Your task to perform on an android device: Open wifi settings Image 0: 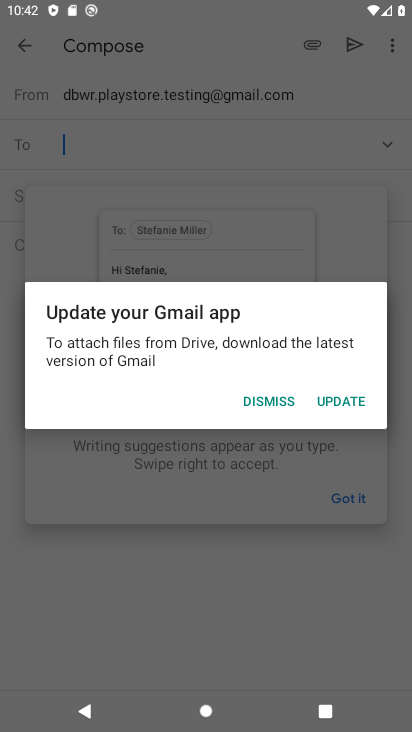
Step 0: press home button
Your task to perform on an android device: Open wifi settings Image 1: 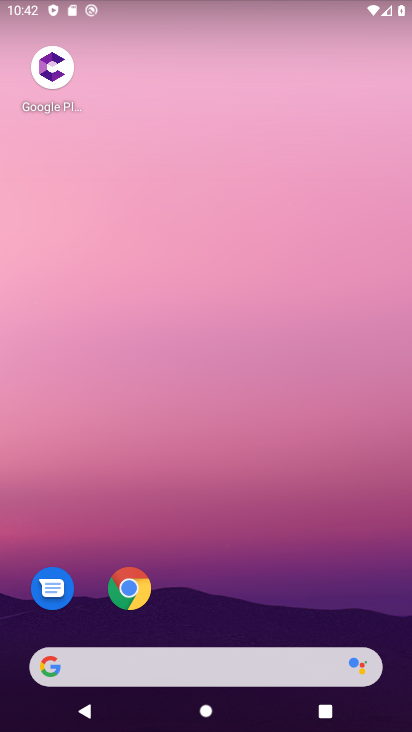
Step 1: drag from (187, 624) to (235, 168)
Your task to perform on an android device: Open wifi settings Image 2: 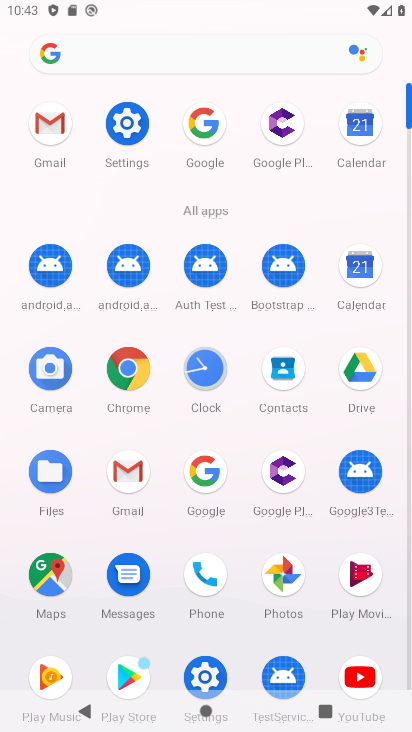
Step 2: click (115, 112)
Your task to perform on an android device: Open wifi settings Image 3: 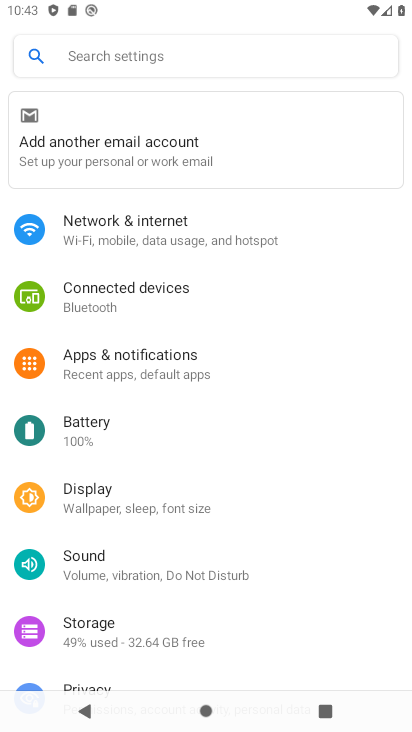
Step 3: click (143, 219)
Your task to perform on an android device: Open wifi settings Image 4: 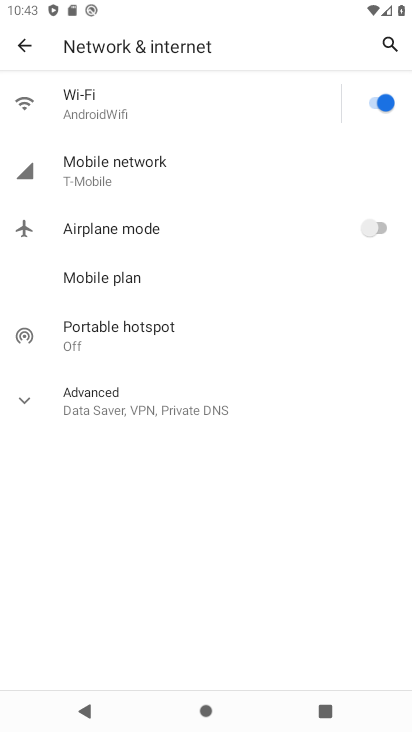
Step 4: click (83, 109)
Your task to perform on an android device: Open wifi settings Image 5: 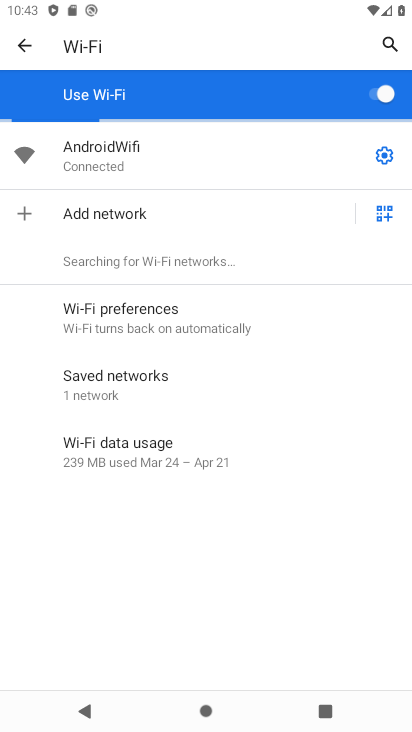
Step 5: task complete